Your task to perform on an android device: set default search engine in the chrome app Image 0: 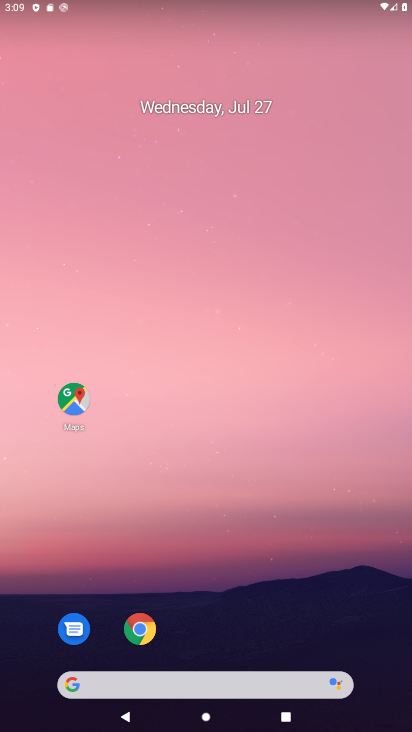
Step 0: press home button
Your task to perform on an android device: set default search engine in the chrome app Image 1: 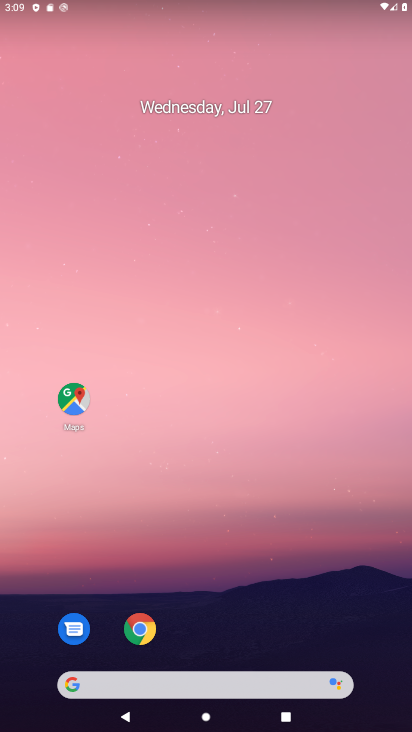
Step 1: click (134, 622)
Your task to perform on an android device: set default search engine in the chrome app Image 2: 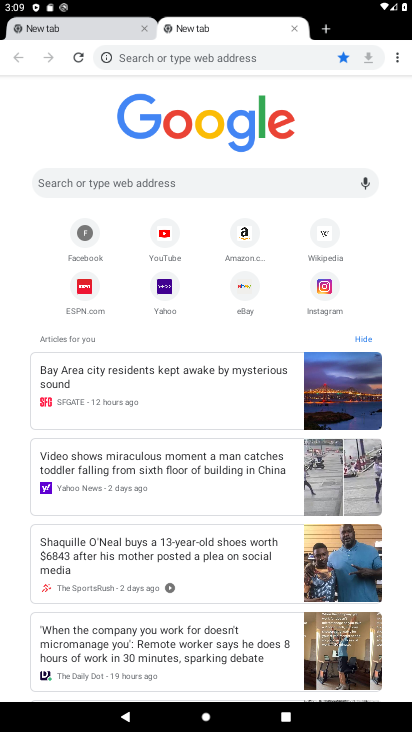
Step 2: click (391, 55)
Your task to perform on an android device: set default search engine in the chrome app Image 3: 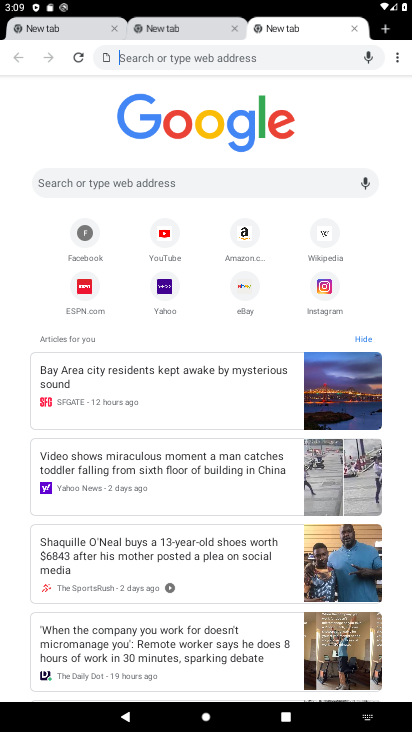
Step 3: click (394, 59)
Your task to perform on an android device: set default search engine in the chrome app Image 4: 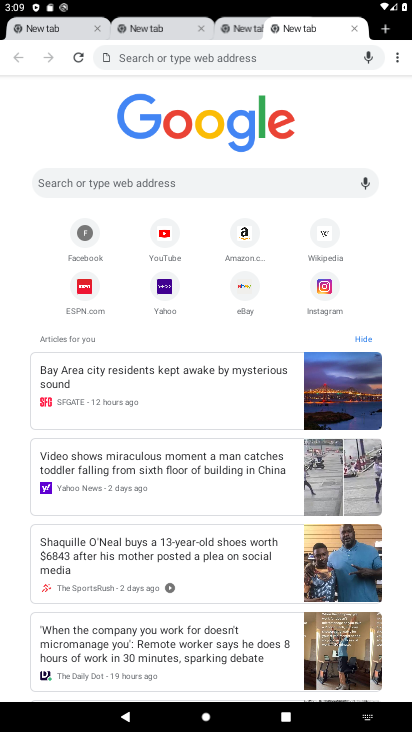
Step 4: click (395, 57)
Your task to perform on an android device: set default search engine in the chrome app Image 5: 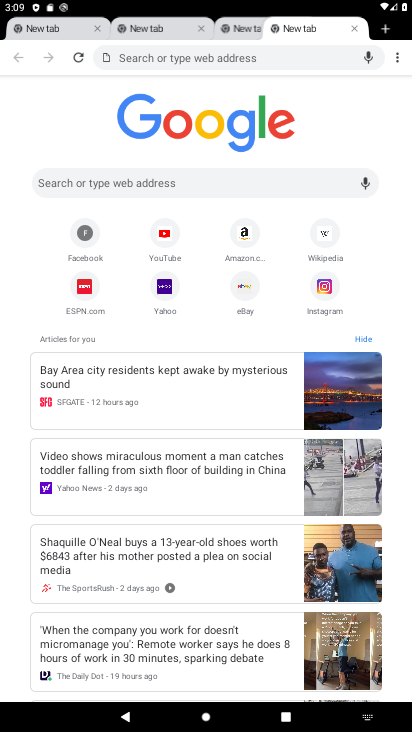
Step 5: click (395, 57)
Your task to perform on an android device: set default search engine in the chrome app Image 6: 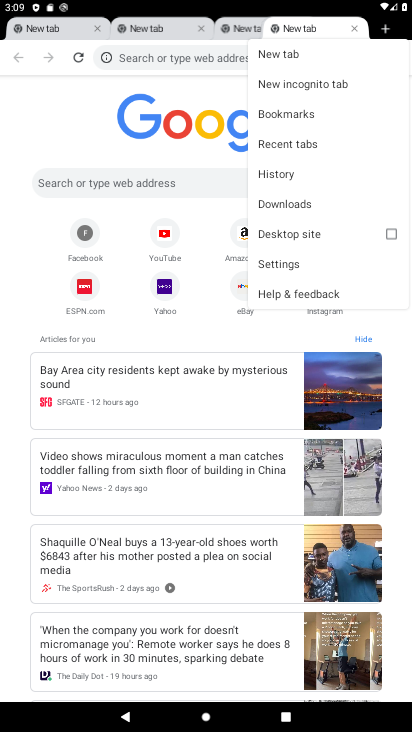
Step 6: click (304, 264)
Your task to perform on an android device: set default search engine in the chrome app Image 7: 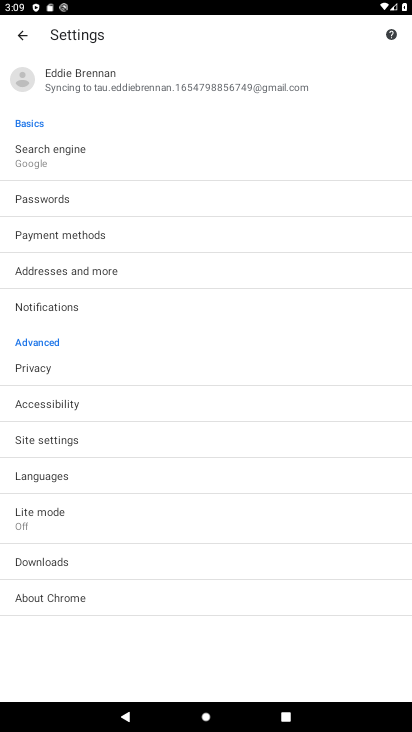
Step 7: click (85, 158)
Your task to perform on an android device: set default search engine in the chrome app Image 8: 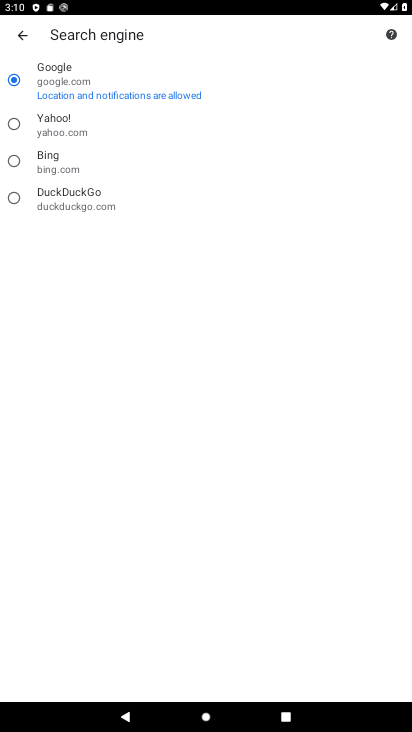
Step 8: click (13, 163)
Your task to perform on an android device: set default search engine in the chrome app Image 9: 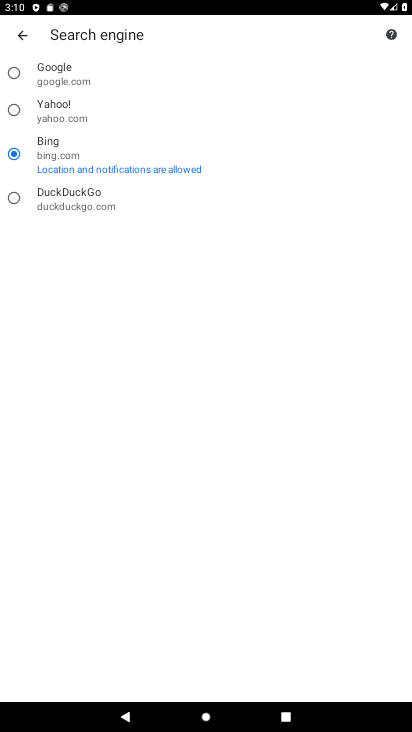
Step 9: task complete